Your task to perform on an android device: What is the news today? Image 0: 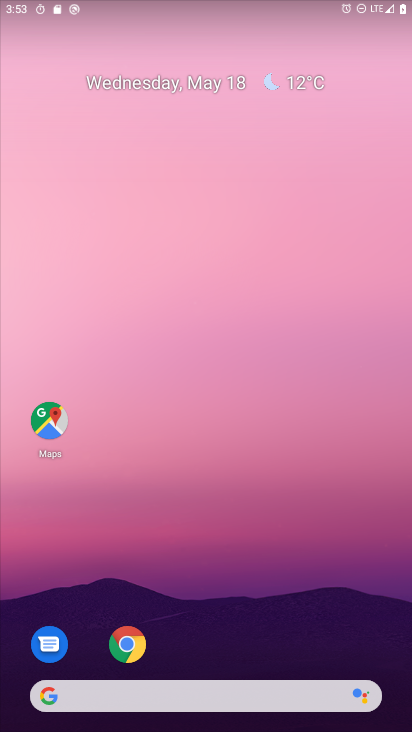
Step 0: drag from (401, 596) to (406, 322)
Your task to perform on an android device: What is the news today? Image 1: 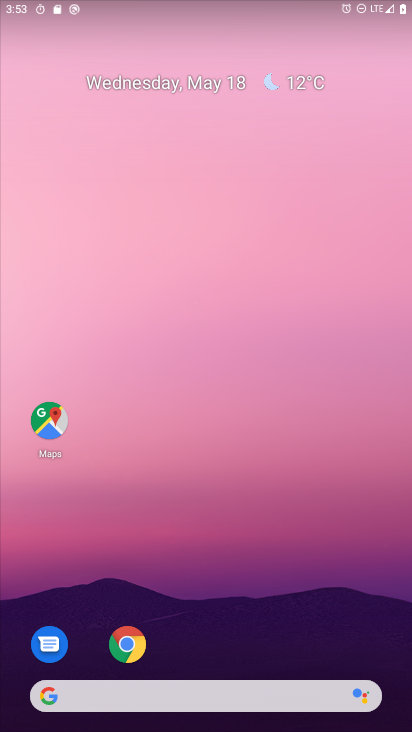
Step 1: drag from (394, 706) to (409, 163)
Your task to perform on an android device: What is the news today? Image 2: 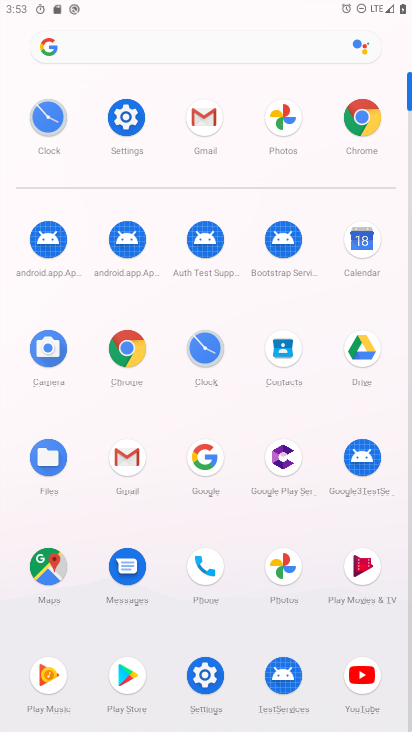
Step 2: click (191, 453)
Your task to perform on an android device: What is the news today? Image 3: 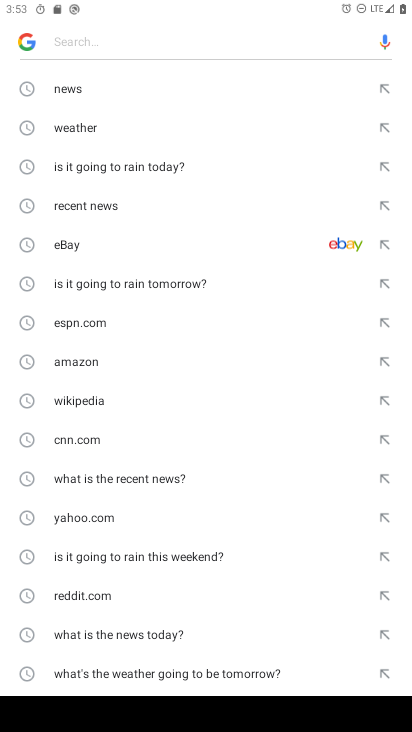
Step 3: click (68, 88)
Your task to perform on an android device: What is the news today? Image 4: 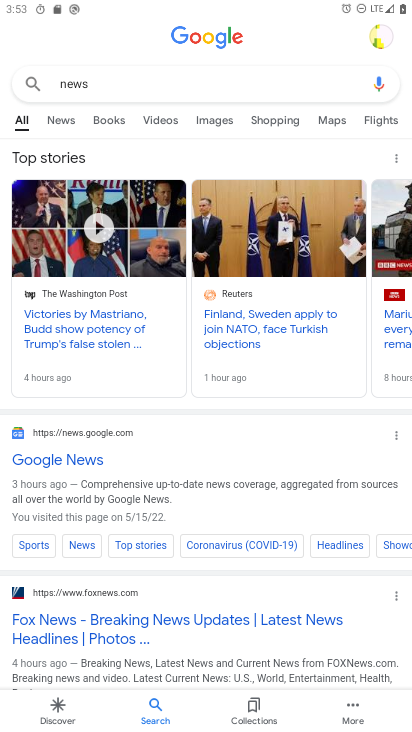
Step 4: task complete